Your task to perform on an android device: Open the calendar and show me this week's events? Image 0: 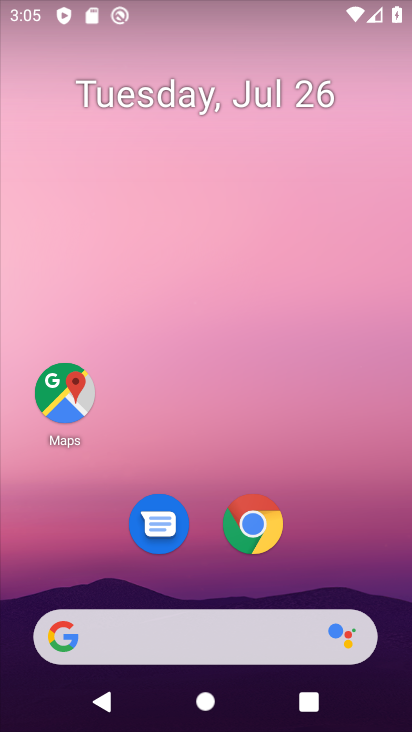
Step 0: drag from (312, 551) to (314, 22)
Your task to perform on an android device: Open the calendar and show me this week's events? Image 1: 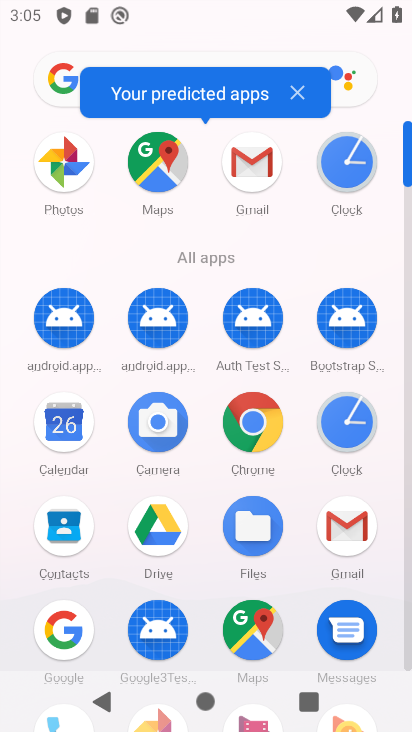
Step 1: click (64, 426)
Your task to perform on an android device: Open the calendar and show me this week's events? Image 2: 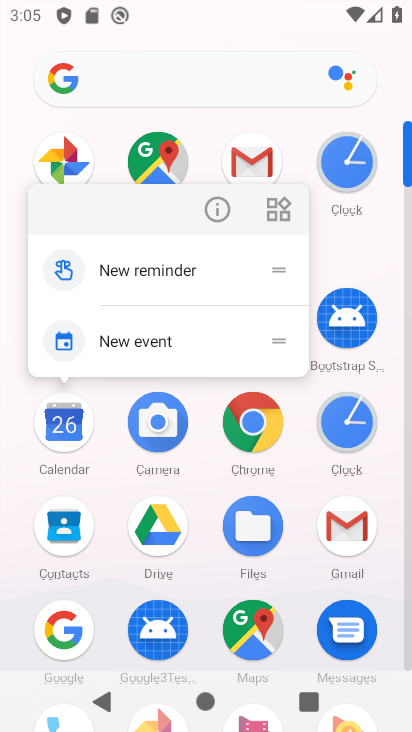
Step 2: click (64, 424)
Your task to perform on an android device: Open the calendar and show me this week's events? Image 3: 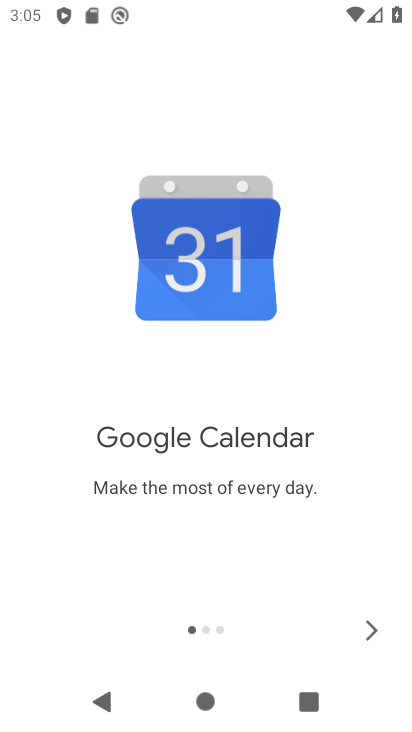
Step 3: click (367, 627)
Your task to perform on an android device: Open the calendar and show me this week's events? Image 4: 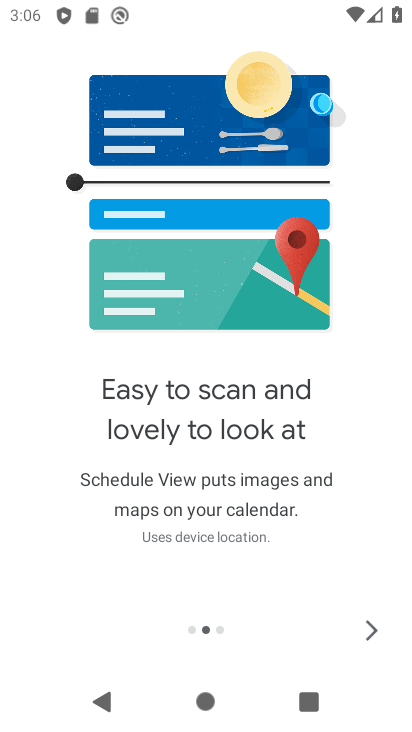
Step 4: click (367, 627)
Your task to perform on an android device: Open the calendar and show me this week's events? Image 5: 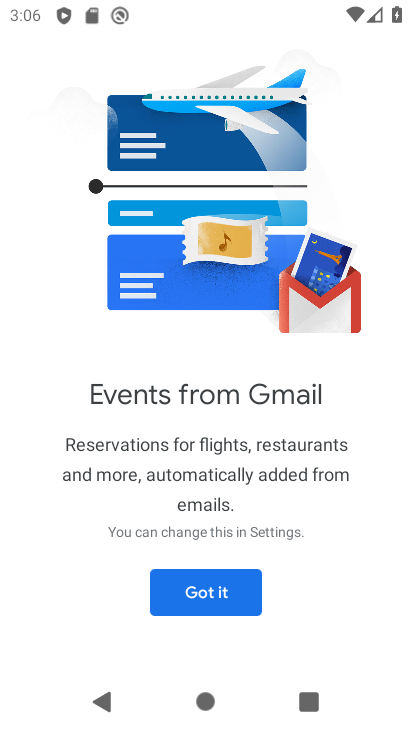
Step 5: click (367, 626)
Your task to perform on an android device: Open the calendar and show me this week's events? Image 6: 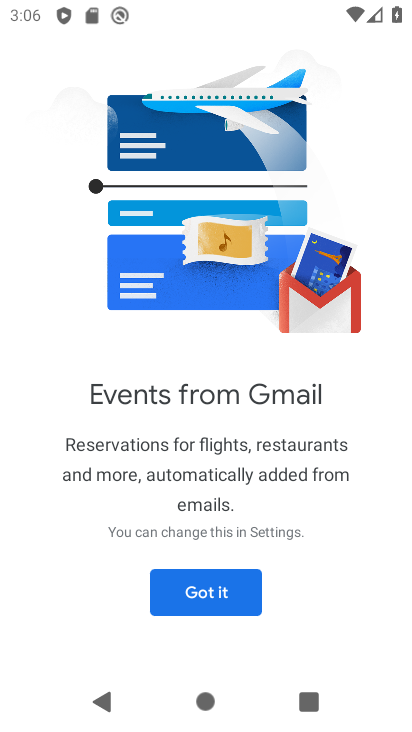
Step 6: click (249, 587)
Your task to perform on an android device: Open the calendar and show me this week's events? Image 7: 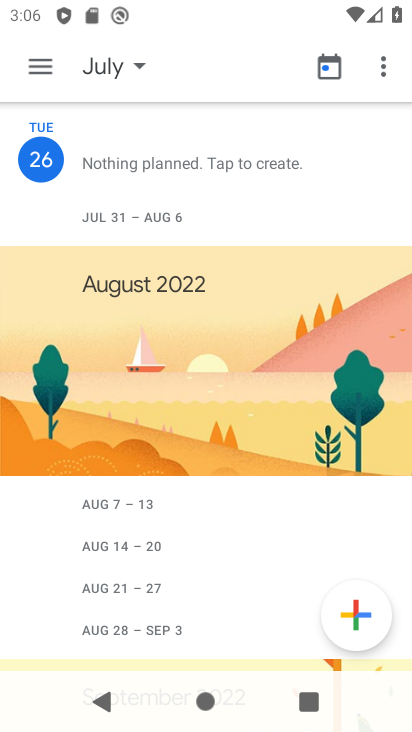
Step 7: click (37, 67)
Your task to perform on an android device: Open the calendar and show me this week's events? Image 8: 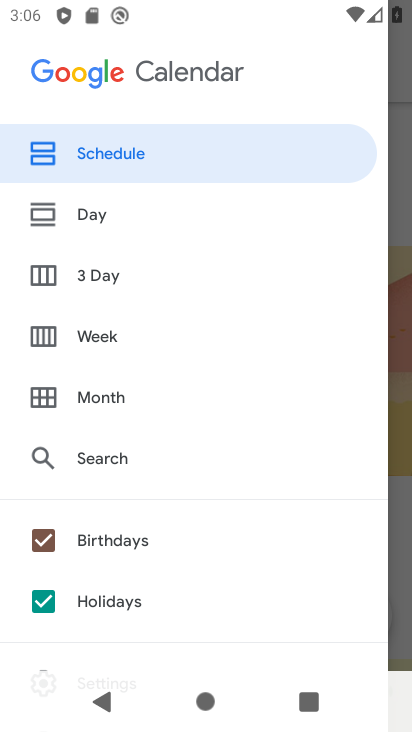
Step 8: click (39, 329)
Your task to perform on an android device: Open the calendar and show me this week's events? Image 9: 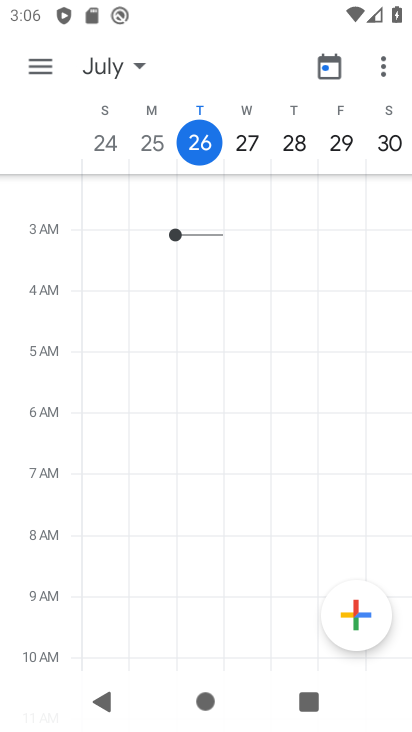
Step 9: task complete